Your task to perform on an android device: remove spam from my inbox in the gmail app Image 0: 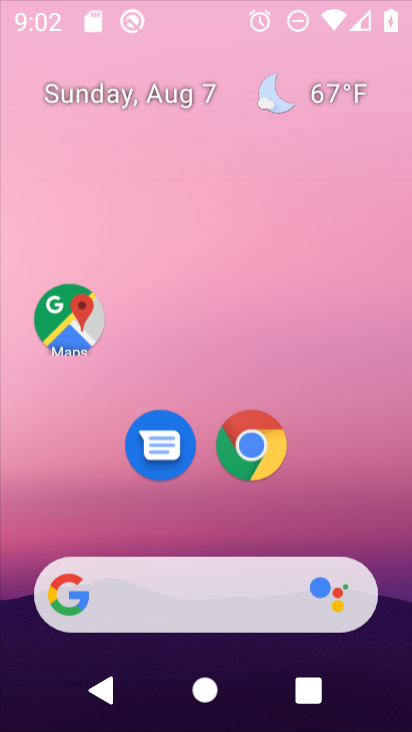
Step 0: press home button
Your task to perform on an android device: remove spam from my inbox in the gmail app Image 1: 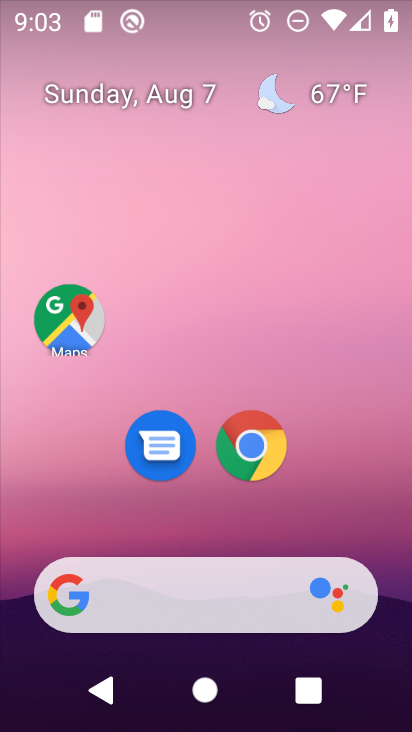
Step 1: drag from (204, 531) to (234, 26)
Your task to perform on an android device: remove spam from my inbox in the gmail app Image 2: 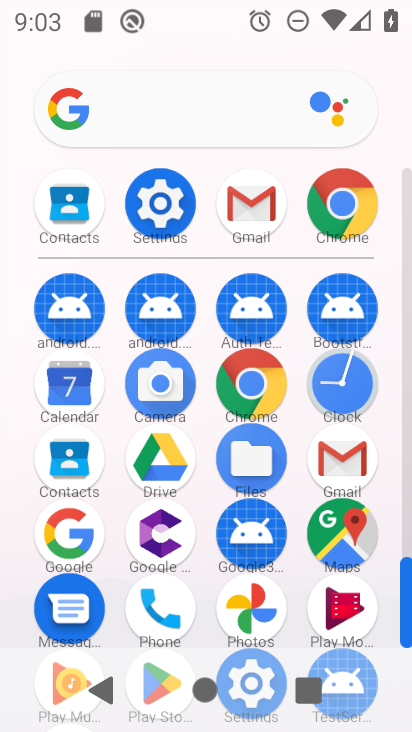
Step 2: click (343, 448)
Your task to perform on an android device: remove spam from my inbox in the gmail app Image 3: 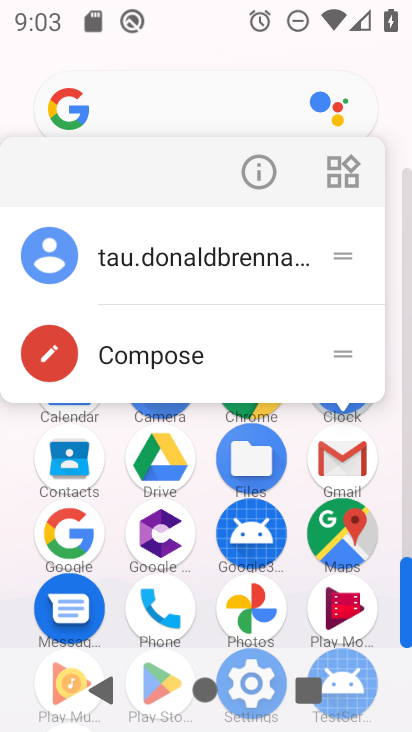
Step 3: click (352, 446)
Your task to perform on an android device: remove spam from my inbox in the gmail app Image 4: 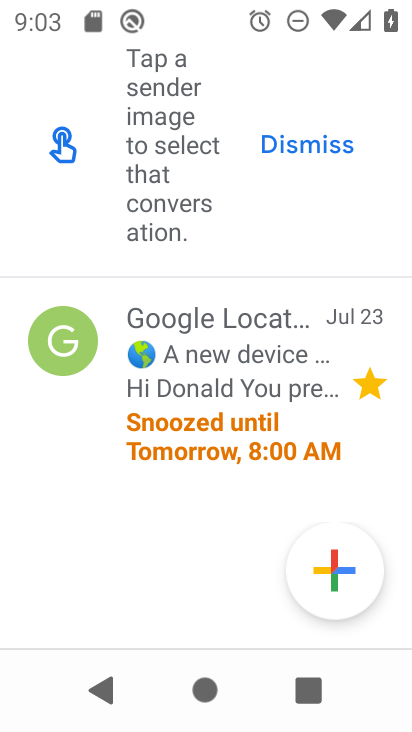
Step 4: drag from (87, 123) to (97, 637)
Your task to perform on an android device: remove spam from my inbox in the gmail app Image 5: 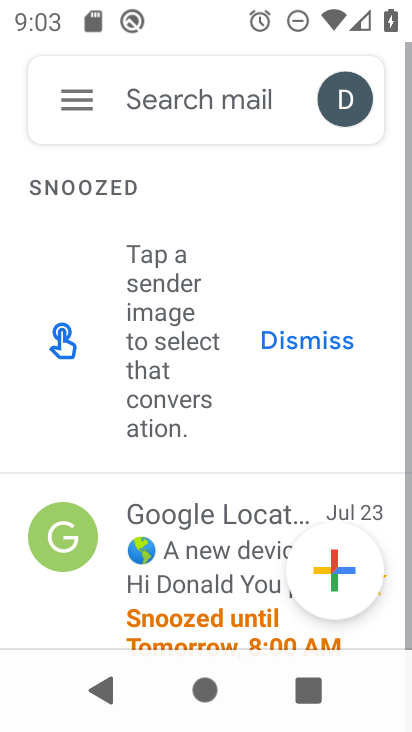
Step 5: click (68, 87)
Your task to perform on an android device: remove spam from my inbox in the gmail app Image 6: 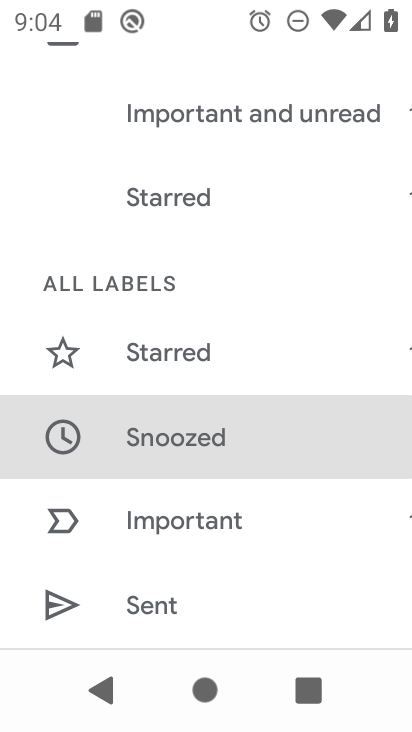
Step 6: drag from (184, 591) to (193, 132)
Your task to perform on an android device: remove spam from my inbox in the gmail app Image 7: 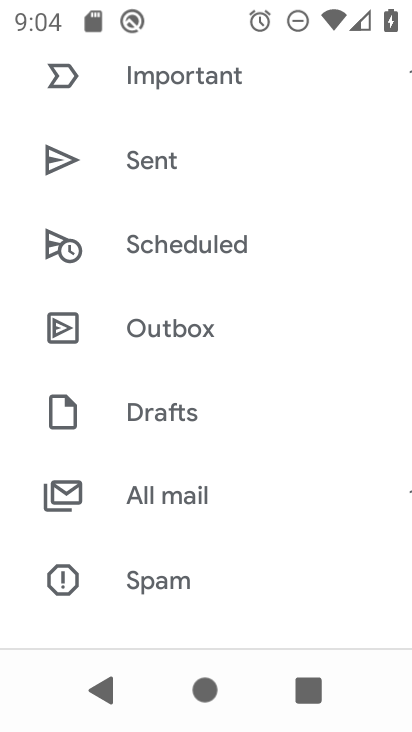
Step 7: drag from (213, 585) to (218, 404)
Your task to perform on an android device: remove spam from my inbox in the gmail app Image 8: 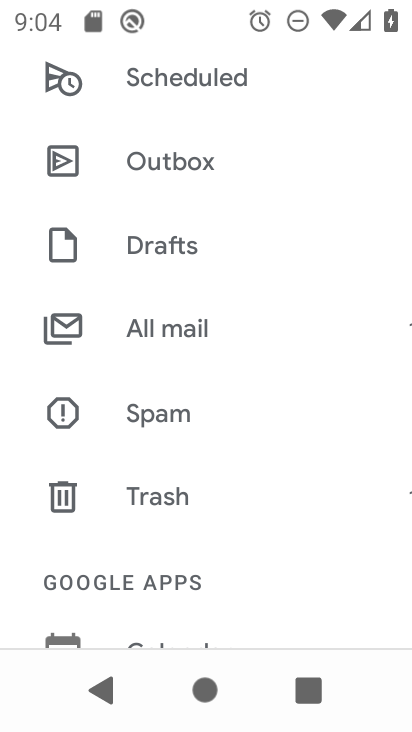
Step 8: click (201, 409)
Your task to perform on an android device: remove spam from my inbox in the gmail app Image 9: 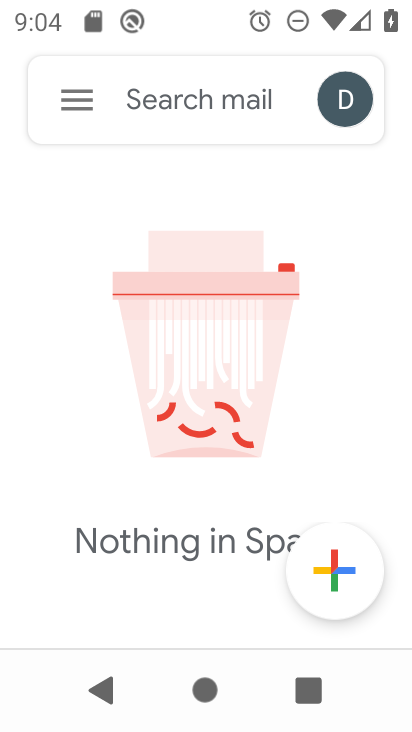
Step 9: task complete